Your task to perform on an android device: toggle airplane mode Image 0: 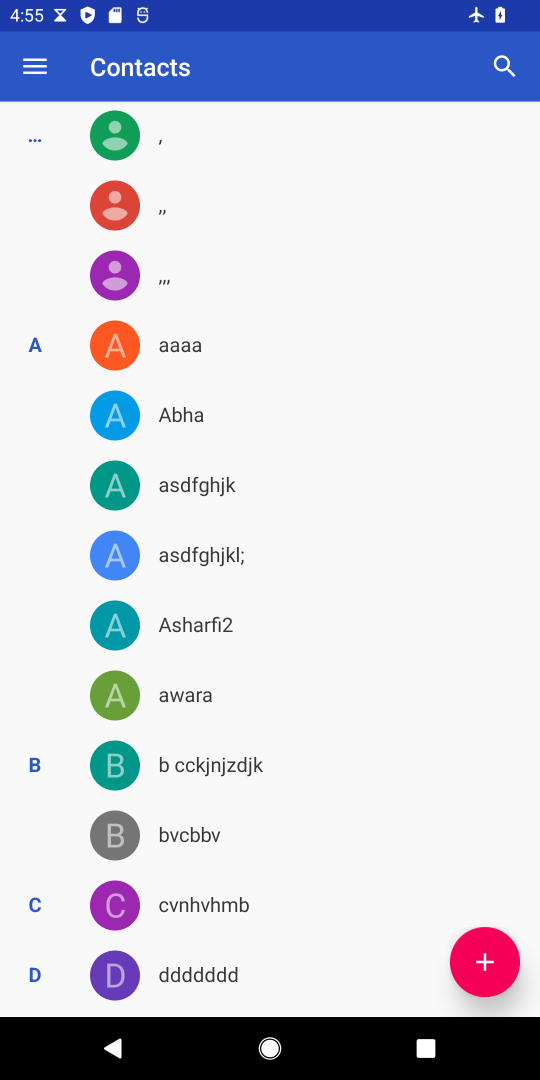
Step 0: press home button
Your task to perform on an android device: toggle airplane mode Image 1: 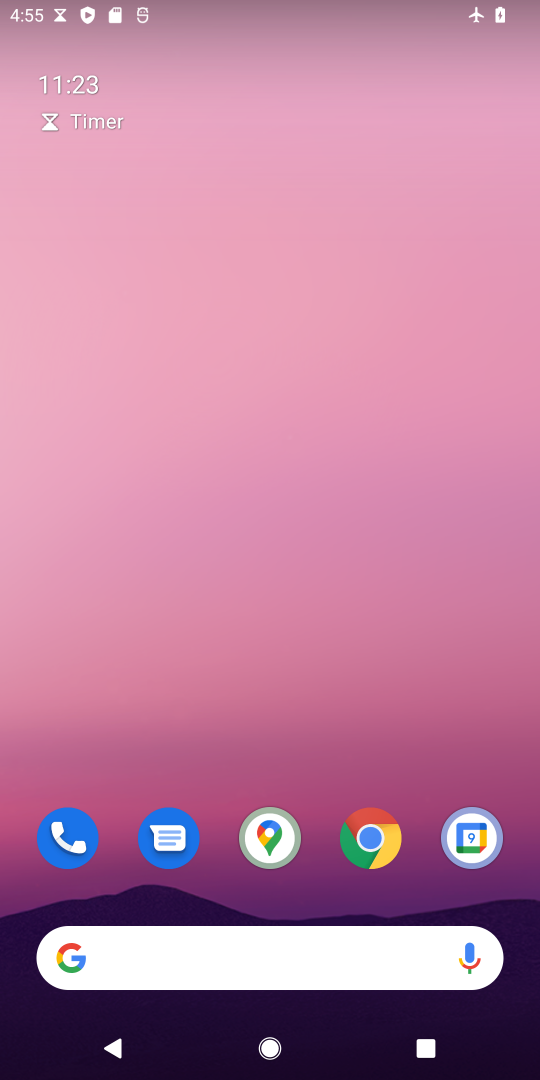
Step 1: drag from (310, 782) to (278, 98)
Your task to perform on an android device: toggle airplane mode Image 2: 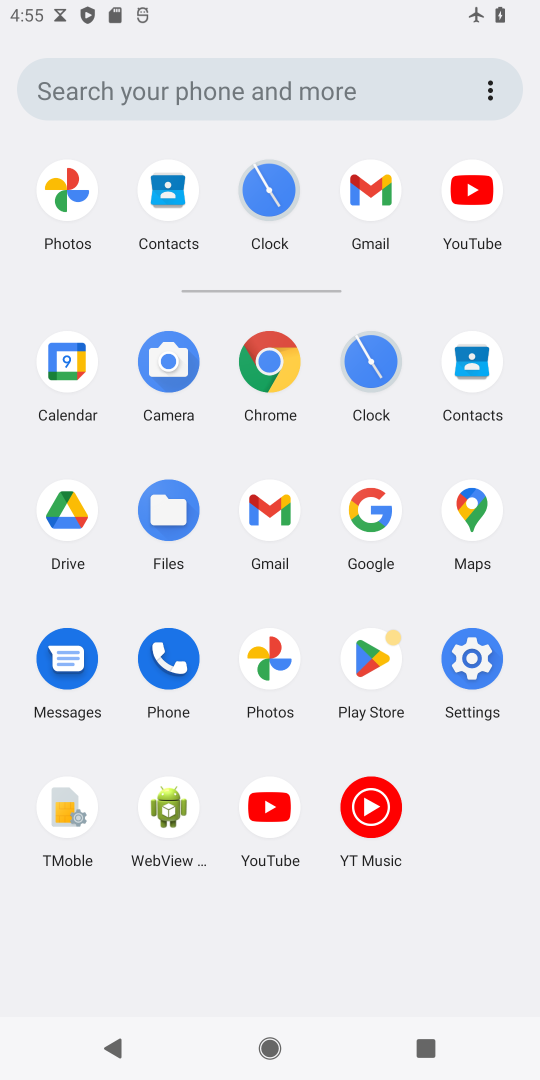
Step 2: click (474, 677)
Your task to perform on an android device: toggle airplane mode Image 3: 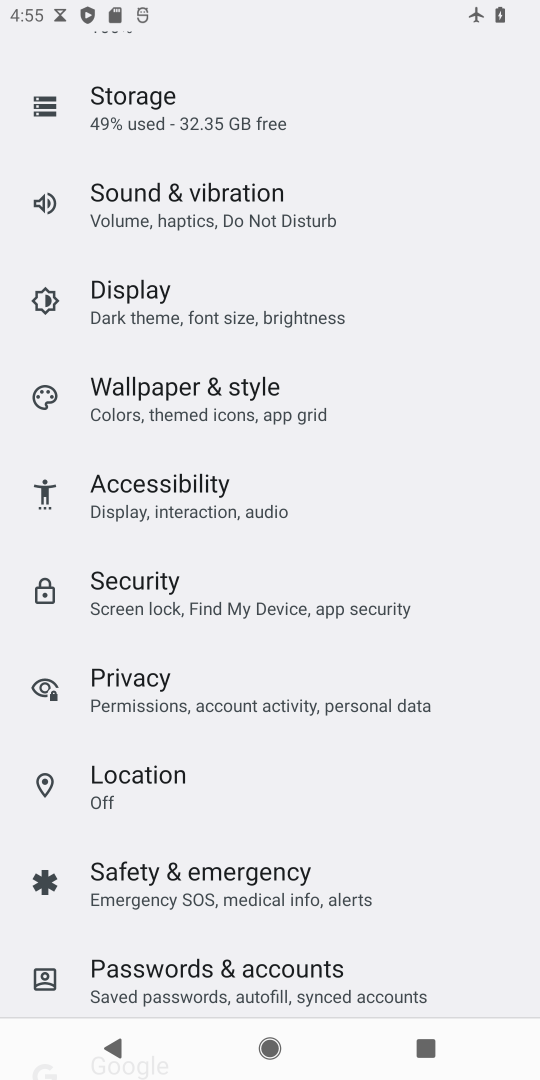
Step 3: drag from (248, 269) to (532, 474)
Your task to perform on an android device: toggle airplane mode Image 4: 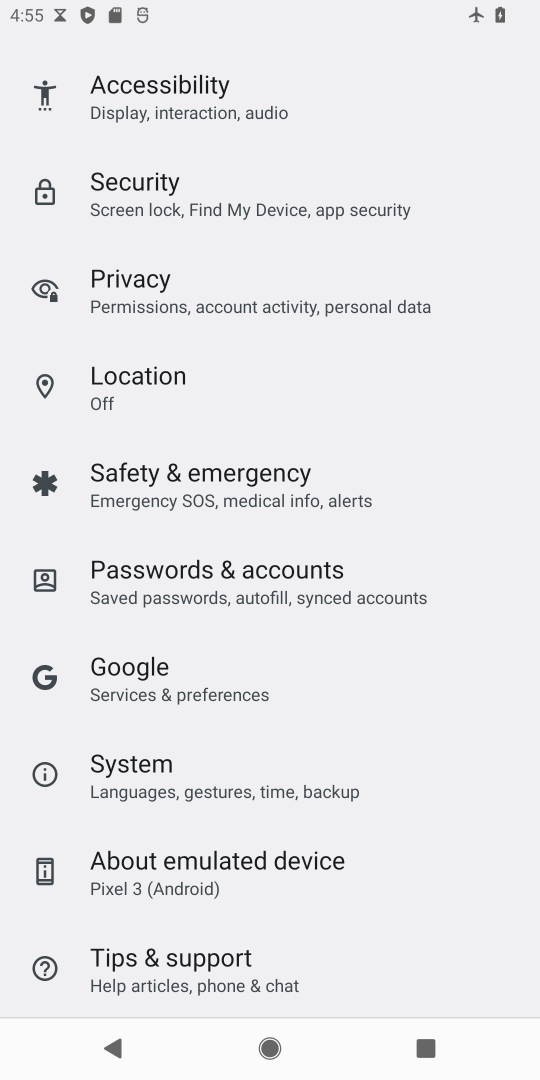
Step 4: drag from (326, 235) to (293, 1063)
Your task to perform on an android device: toggle airplane mode Image 5: 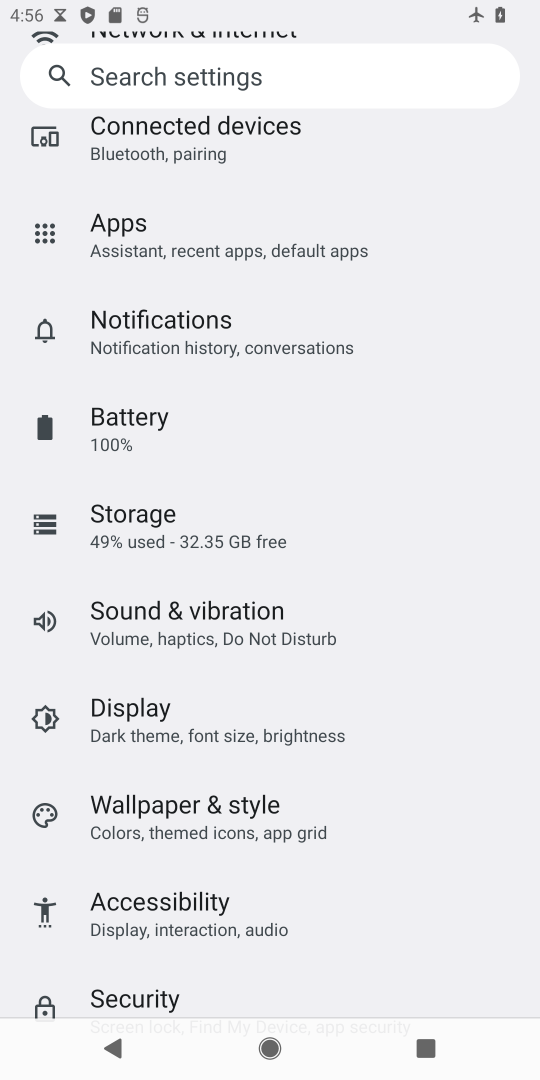
Step 5: drag from (282, 163) to (236, 927)
Your task to perform on an android device: toggle airplane mode Image 6: 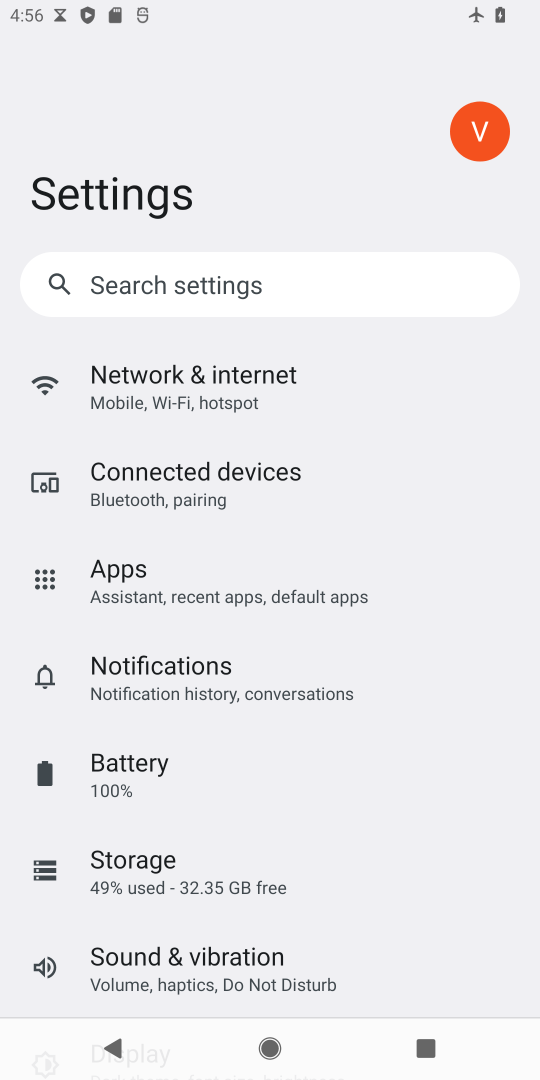
Step 6: click (271, 383)
Your task to perform on an android device: toggle airplane mode Image 7: 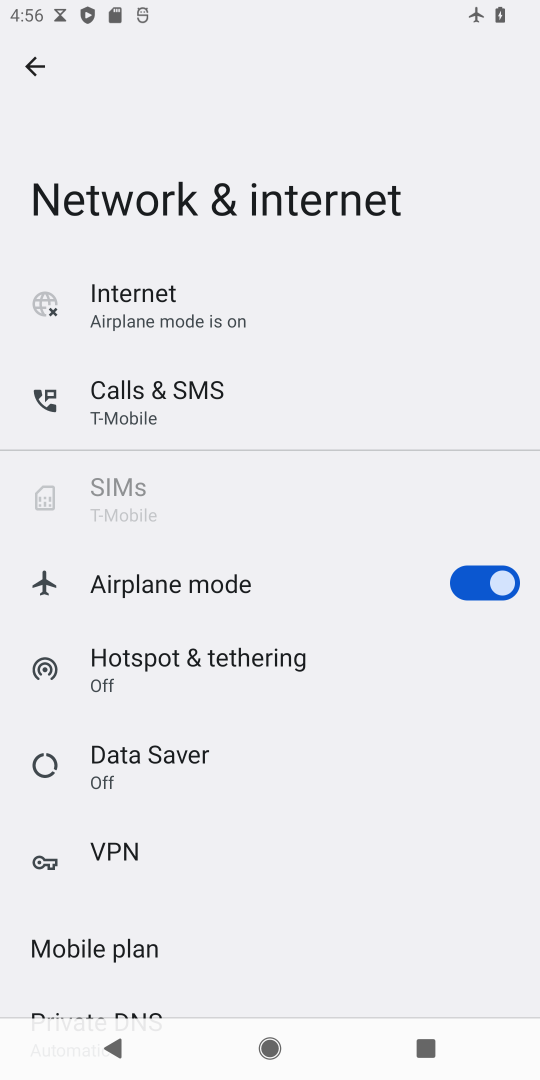
Step 7: click (479, 593)
Your task to perform on an android device: toggle airplane mode Image 8: 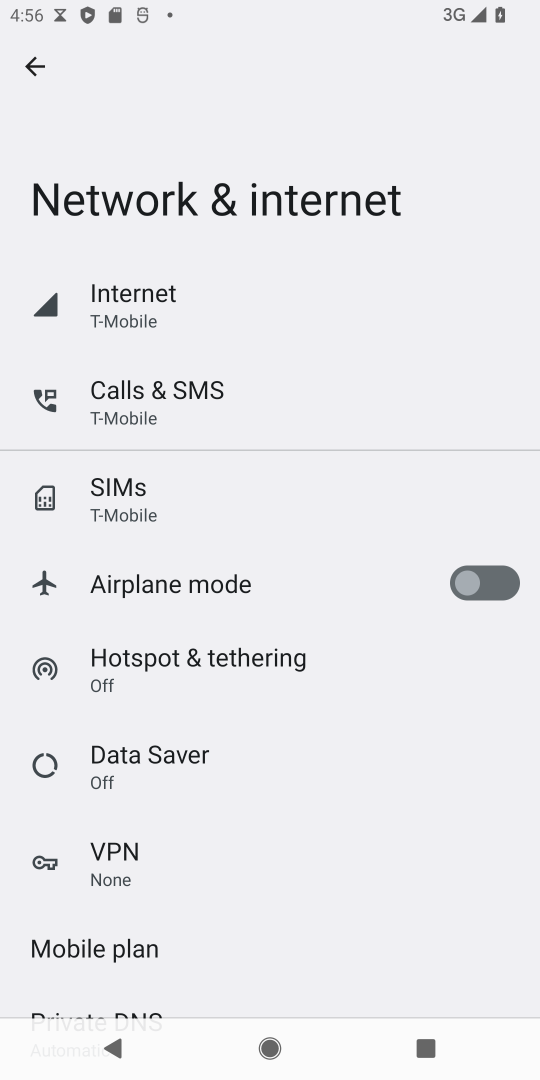
Step 8: task complete